Your task to perform on an android device: open app "Facebook Messenger" (install if not already installed) Image 0: 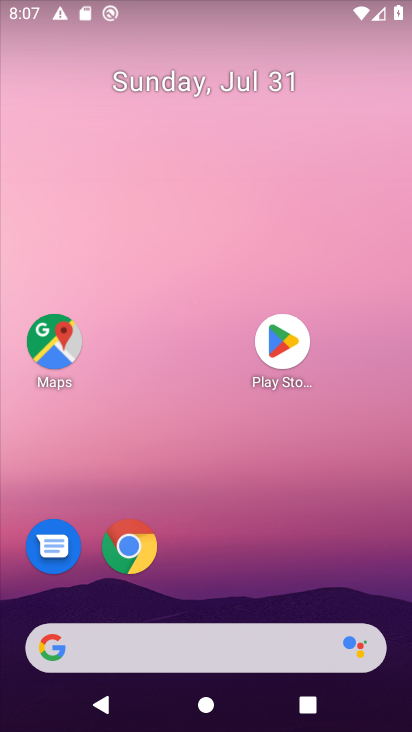
Step 0: click (285, 334)
Your task to perform on an android device: open app "Facebook Messenger" (install if not already installed) Image 1: 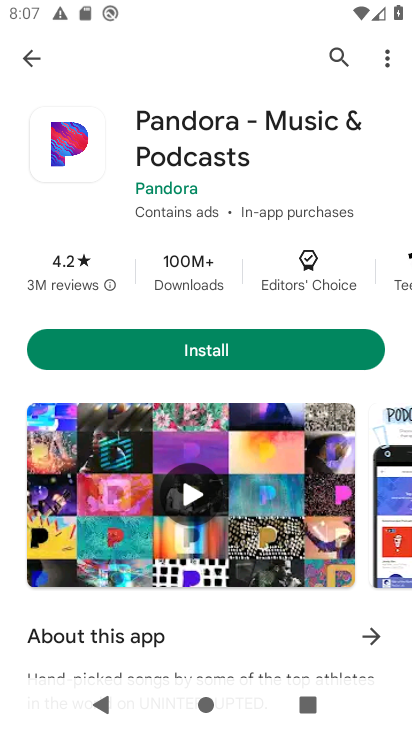
Step 1: click (335, 54)
Your task to perform on an android device: open app "Facebook Messenger" (install if not already installed) Image 2: 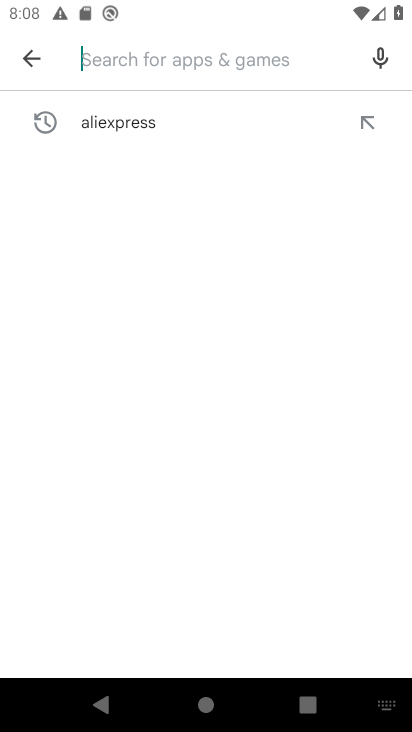
Step 2: type "Facebook Messenger"
Your task to perform on an android device: open app "Facebook Messenger" (install if not already installed) Image 3: 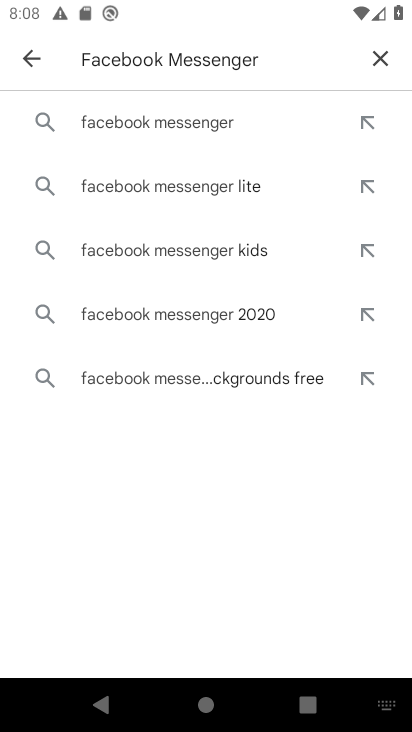
Step 3: click (131, 114)
Your task to perform on an android device: open app "Facebook Messenger" (install if not already installed) Image 4: 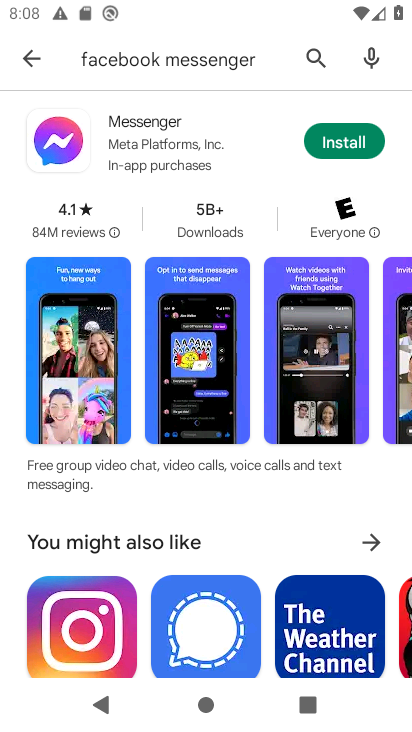
Step 4: click (340, 141)
Your task to perform on an android device: open app "Facebook Messenger" (install if not already installed) Image 5: 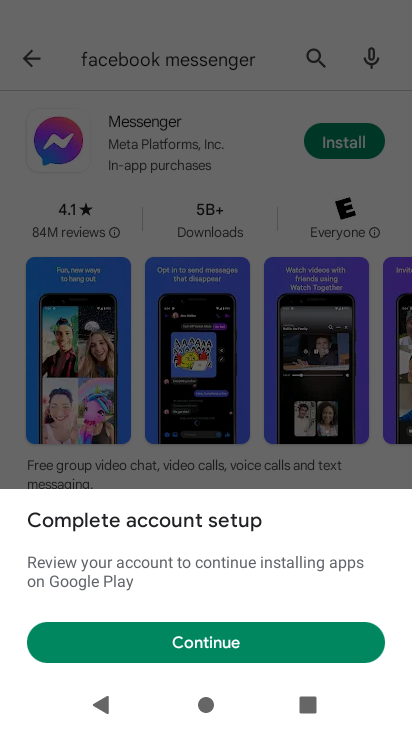
Step 5: click (191, 645)
Your task to perform on an android device: open app "Facebook Messenger" (install if not already installed) Image 6: 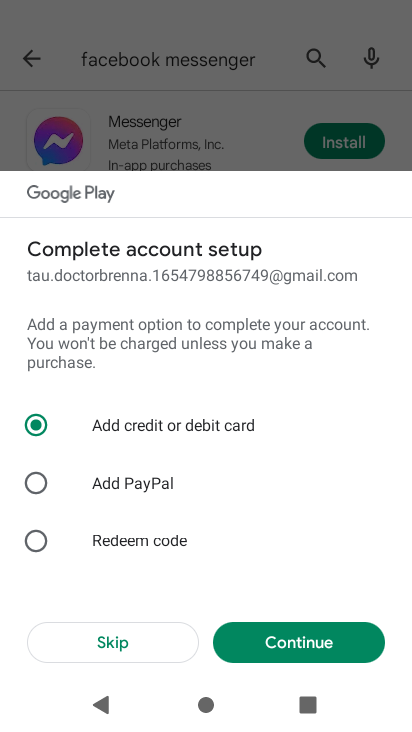
Step 6: click (112, 637)
Your task to perform on an android device: open app "Facebook Messenger" (install if not already installed) Image 7: 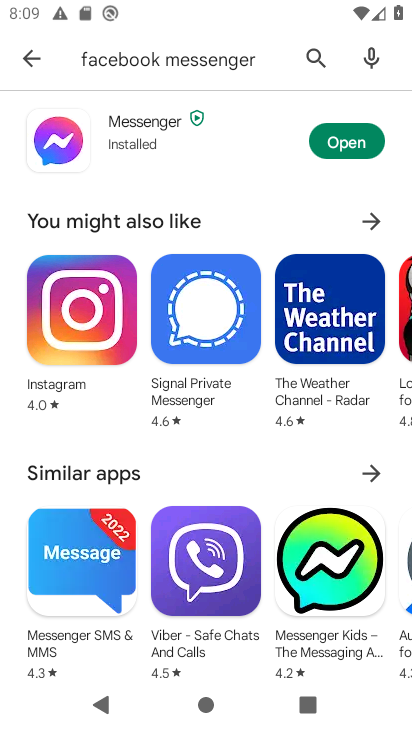
Step 7: click (346, 142)
Your task to perform on an android device: open app "Facebook Messenger" (install if not already installed) Image 8: 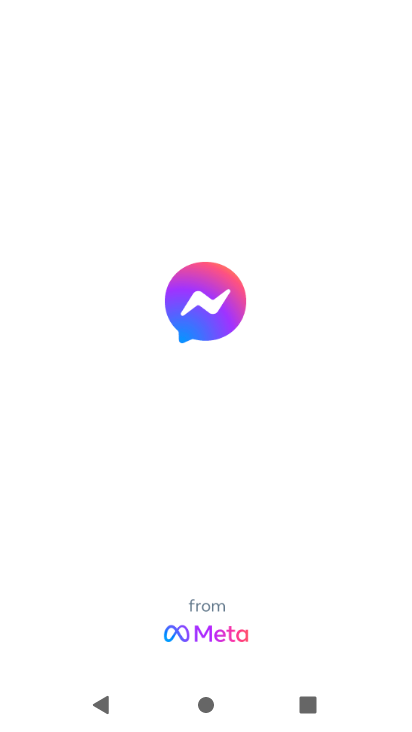
Step 8: task complete